Your task to perform on an android device: turn off notifications settings in the gmail app Image 0: 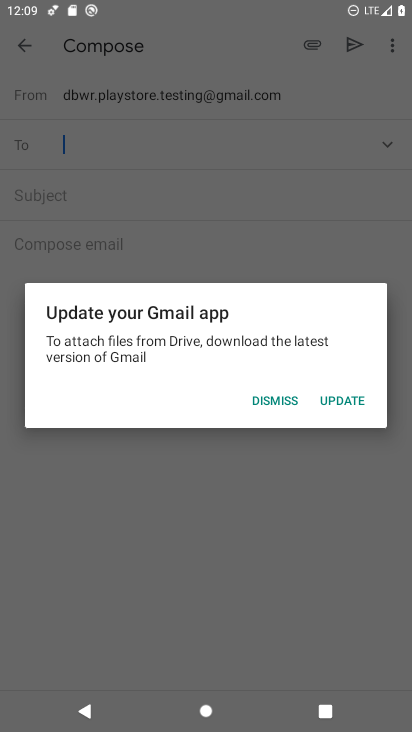
Step 0: press back button
Your task to perform on an android device: turn off notifications settings in the gmail app Image 1: 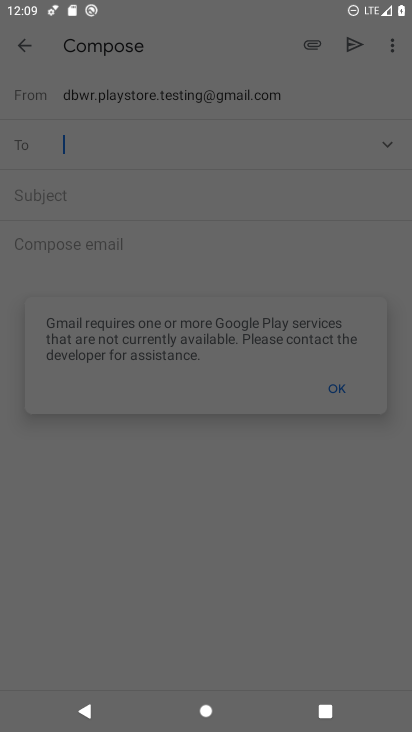
Step 1: press home button
Your task to perform on an android device: turn off notifications settings in the gmail app Image 2: 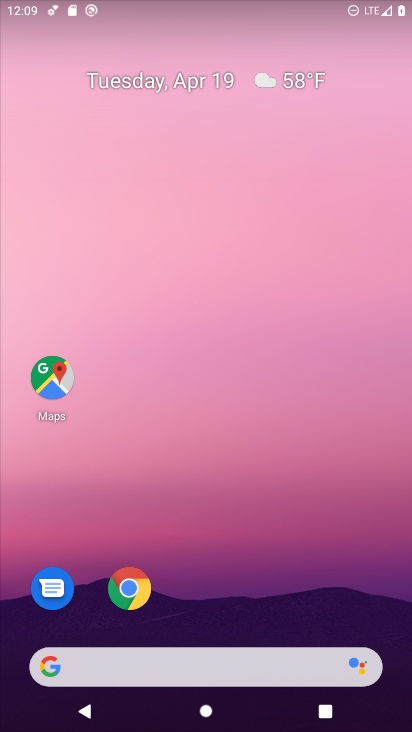
Step 2: drag from (234, 580) to (173, 29)
Your task to perform on an android device: turn off notifications settings in the gmail app Image 3: 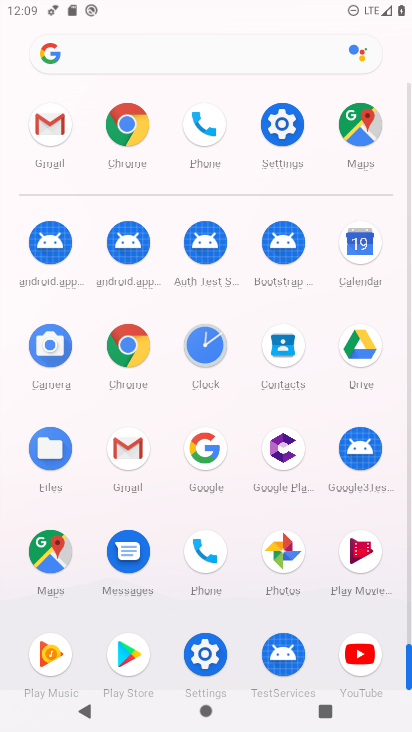
Step 3: click (126, 448)
Your task to perform on an android device: turn off notifications settings in the gmail app Image 4: 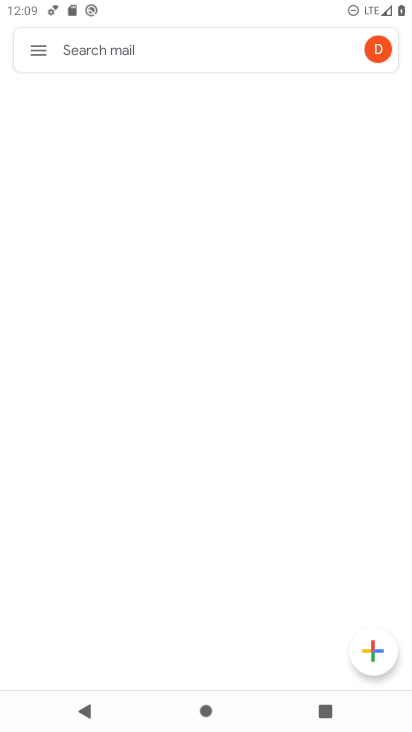
Step 4: click (41, 44)
Your task to perform on an android device: turn off notifications settings in the gmail app Image 5: 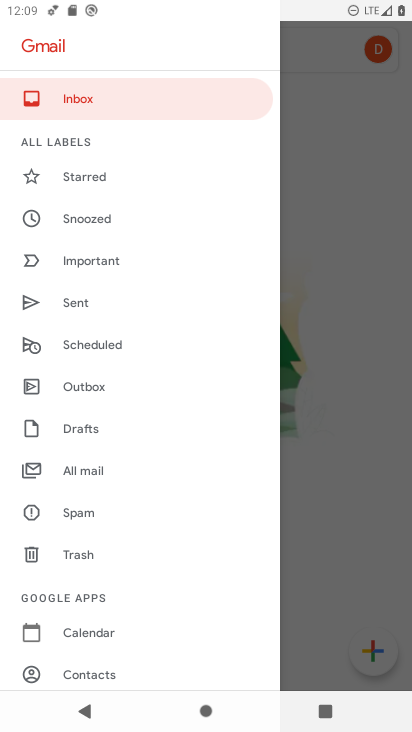
Step 5: drag from (128, 561) to (145, 186)
Your task to perform on an android device: turn off notifications settings in the gmail app Image 6: 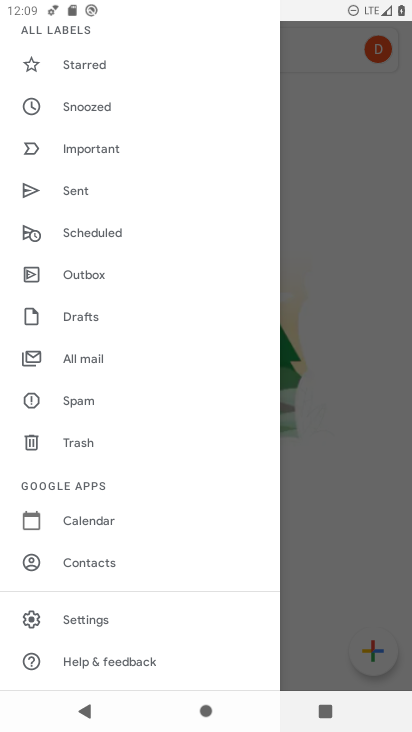
Step 6: click (89, 626)
Your task to perform on an android device: turn off notifications settings in the gmail app Image 7: 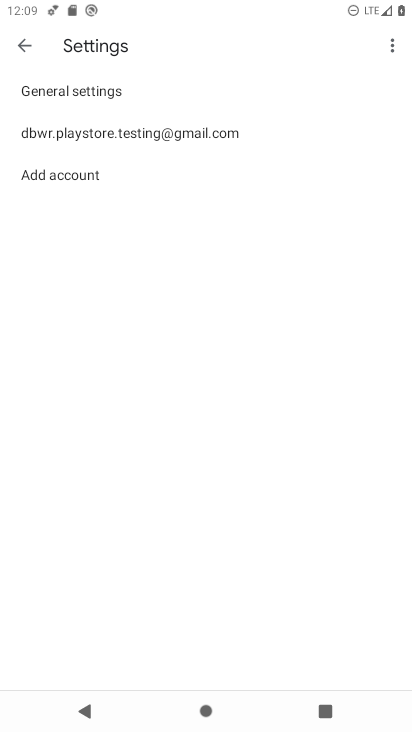
Step 7: click (149, 145)
Your task to perform on an android device: turn off notifications settings in the gmail app Image 8: 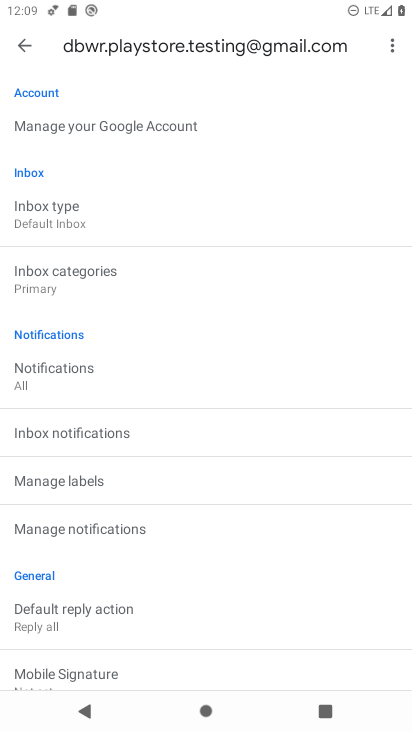
Step 8: click (119, 539)
Your task to perform on an android device: turn off notifications settings in the gmail app Image 9: 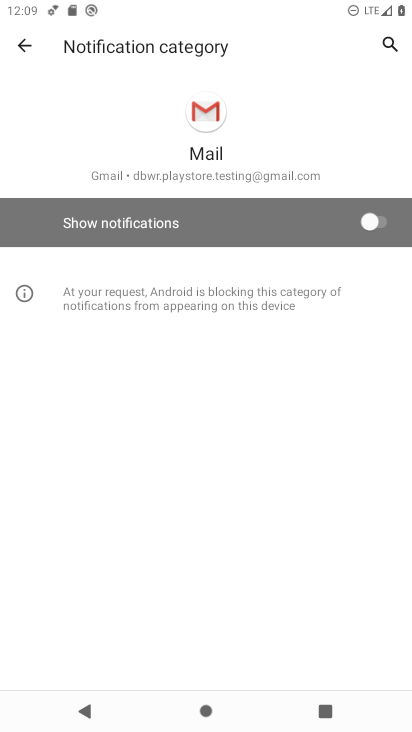
Step 9: task complete